Your task to perform on an android device: What time is it in Los Angeles? Image 0: 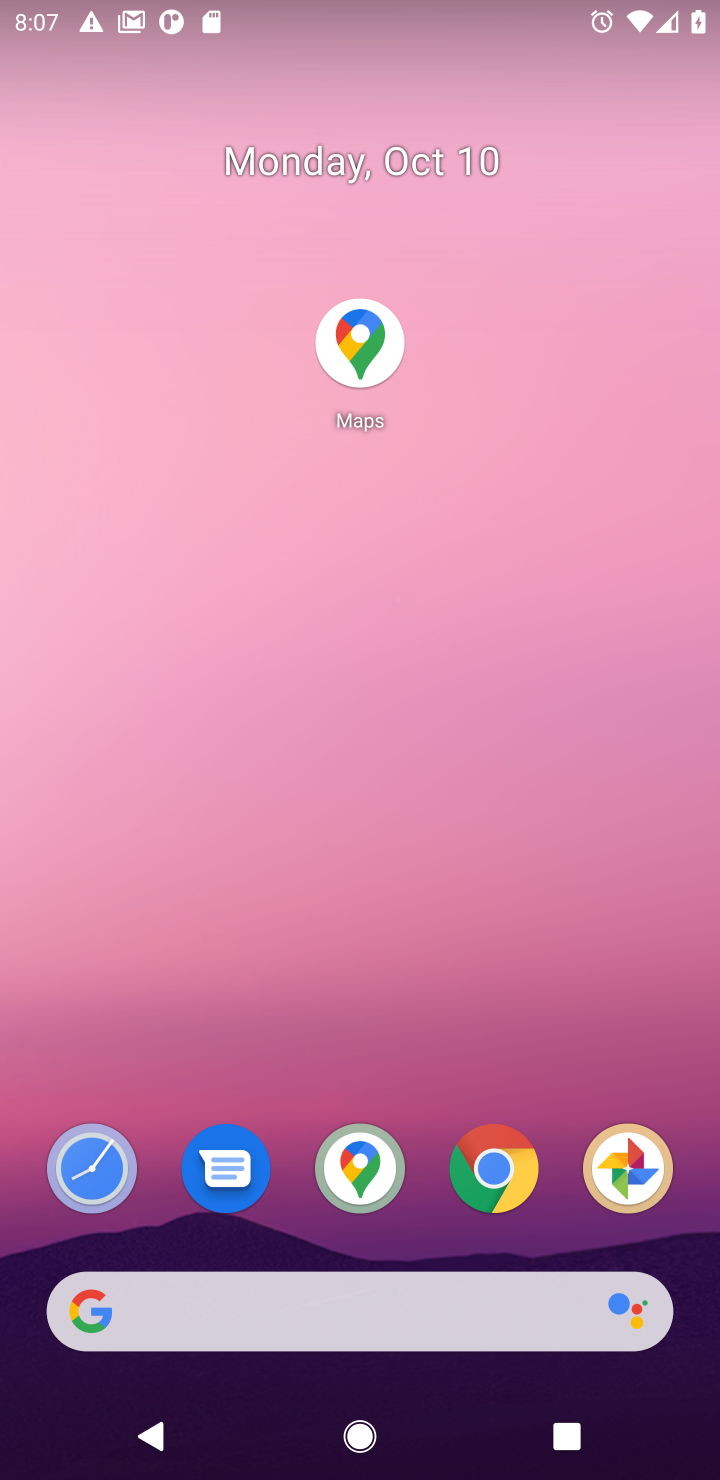
Step 0: click (277, 1302)
Your task to perform on an android device: What time is it in Los Angeles? Image 1: 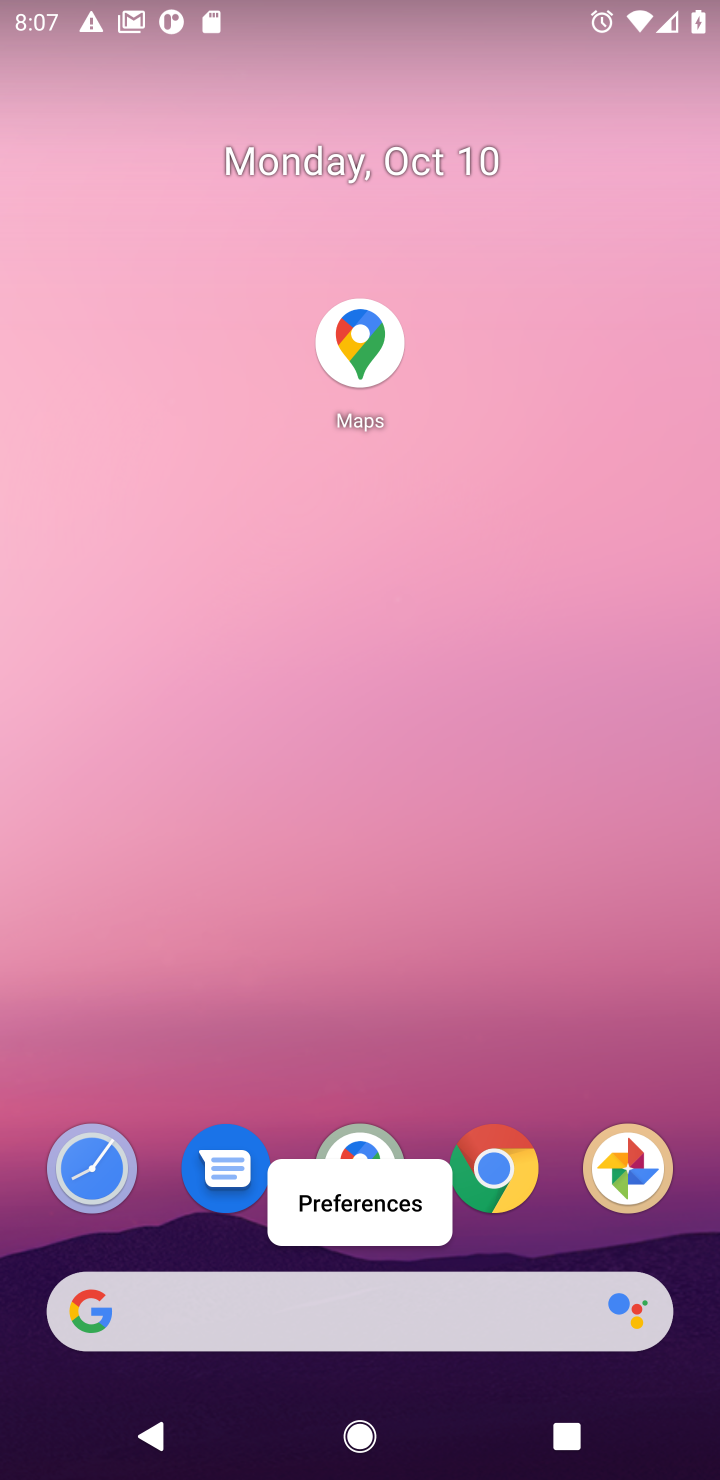
Step 1: click (170, 1305)
Your task to perform on an android device: What time is it in Los Angeles? Image 2: 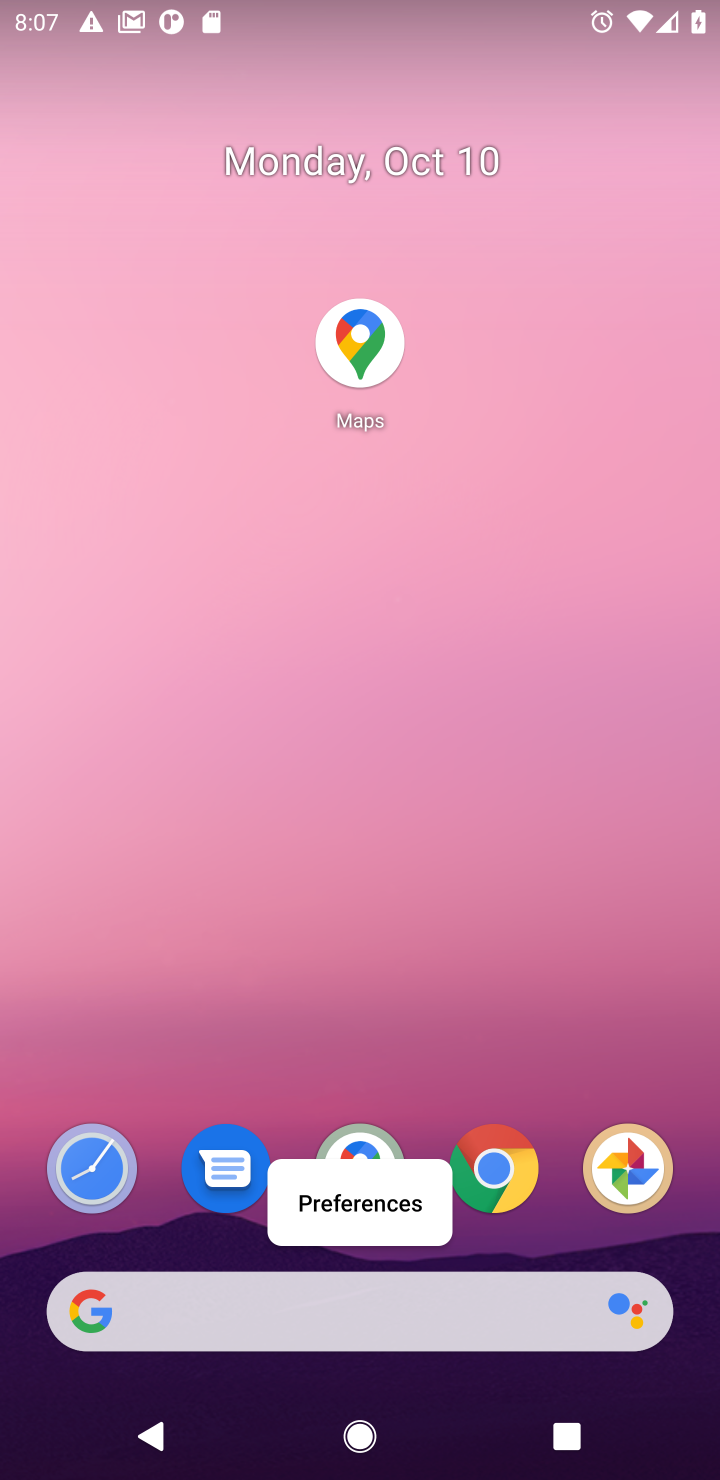
Step 2: click (170, 1305)
Your task to perform on an android device: What time is it in Los Angeles? Image 3: 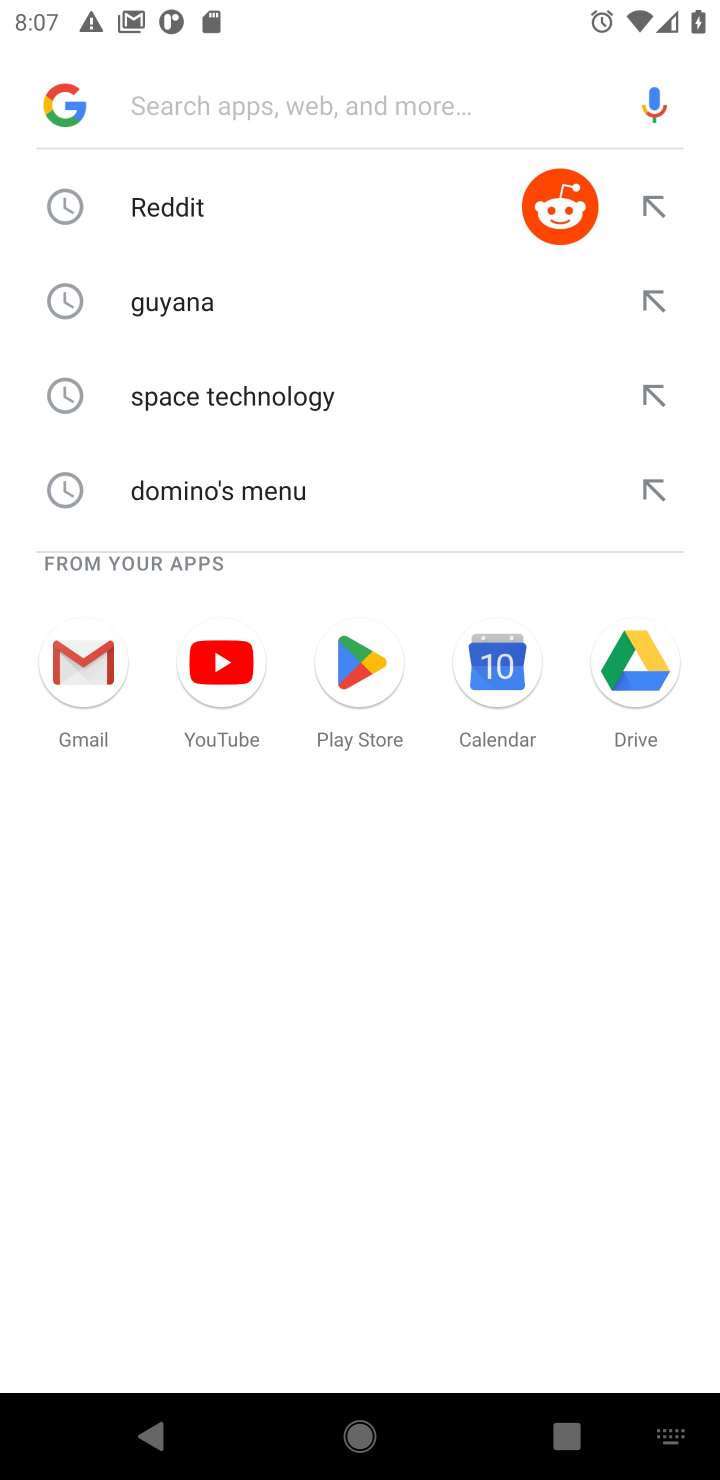
Step 3: click (155, 118)
Your task to perform on an android device: What time is it in Los Angeles? Image 4: 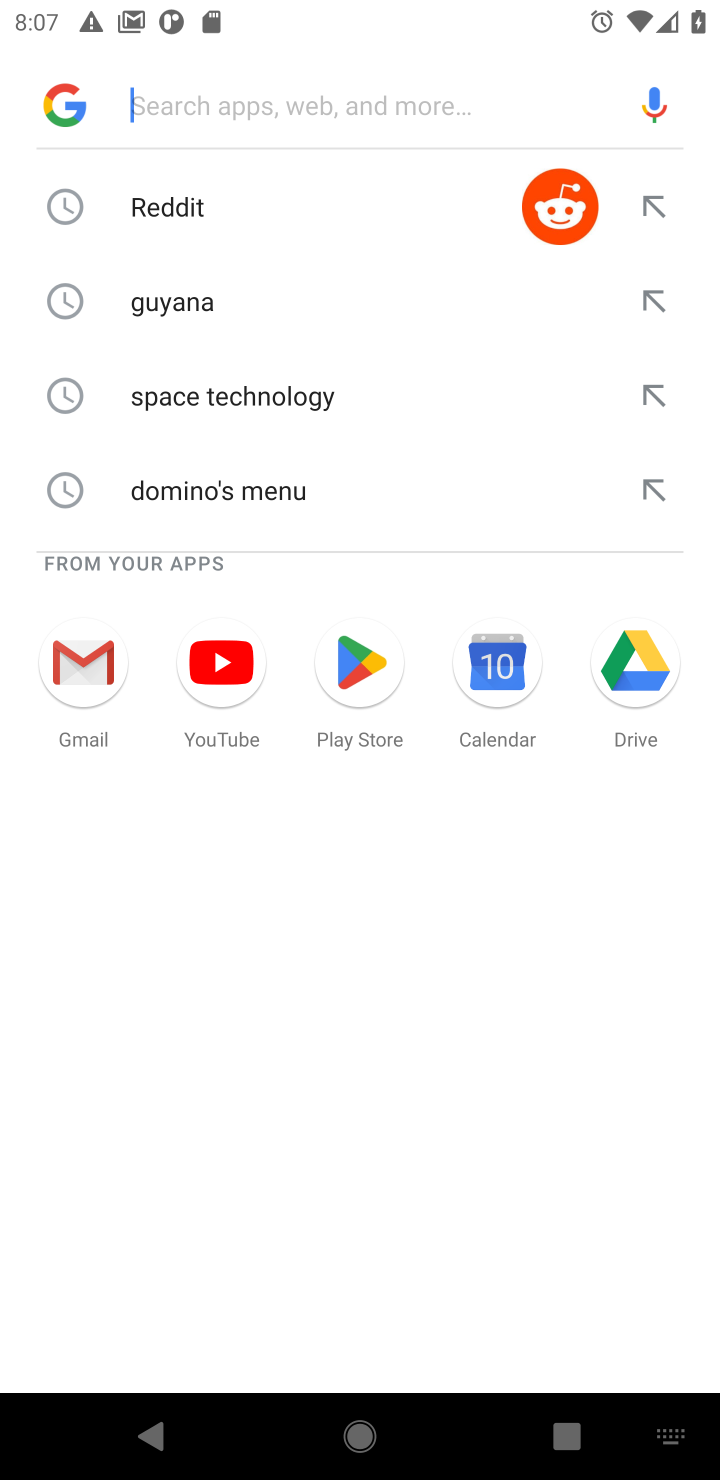
Step 4: type "time in los angeles"
Your task to perform on an android device: What time is it in Los Angeles? Image 5: 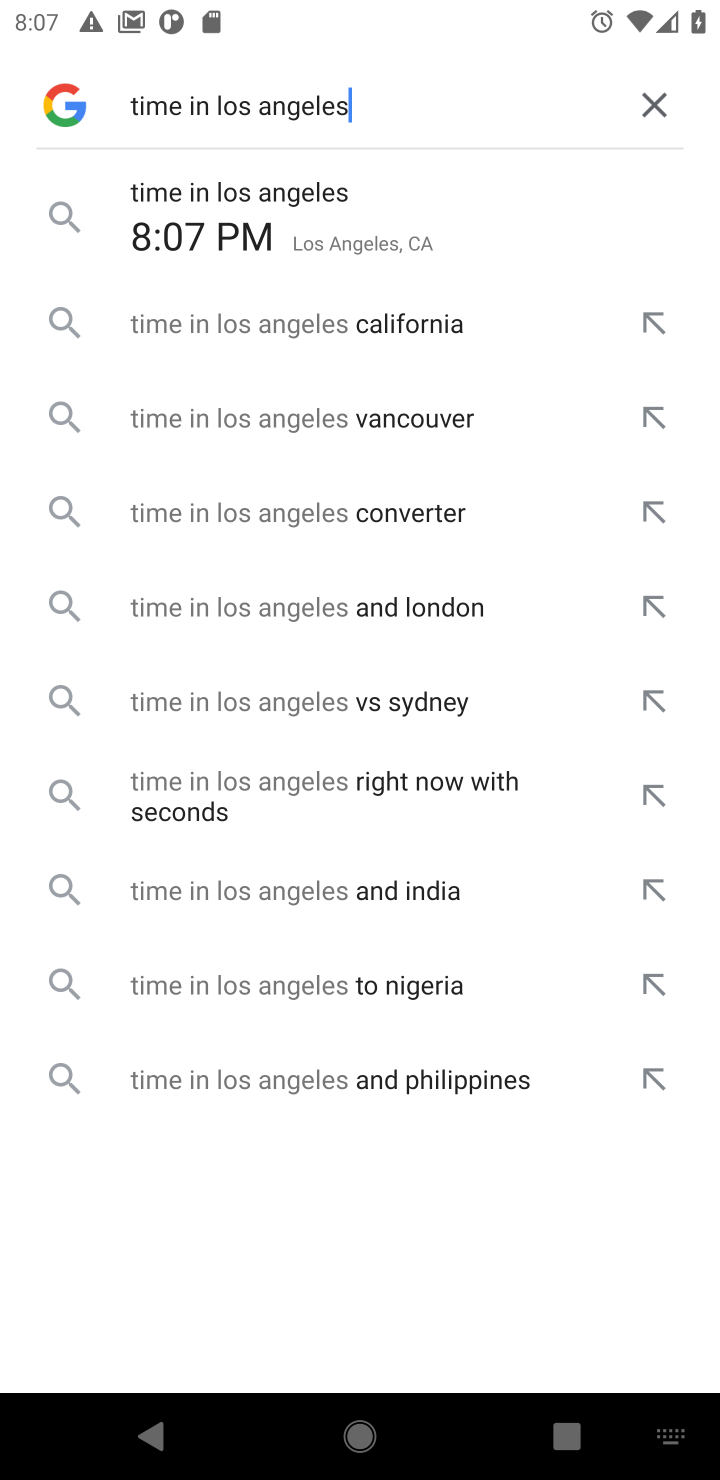
Step 5: click (232, 240)
Your task to perform on an android device: What time is it in Los Angeles? Image 6: 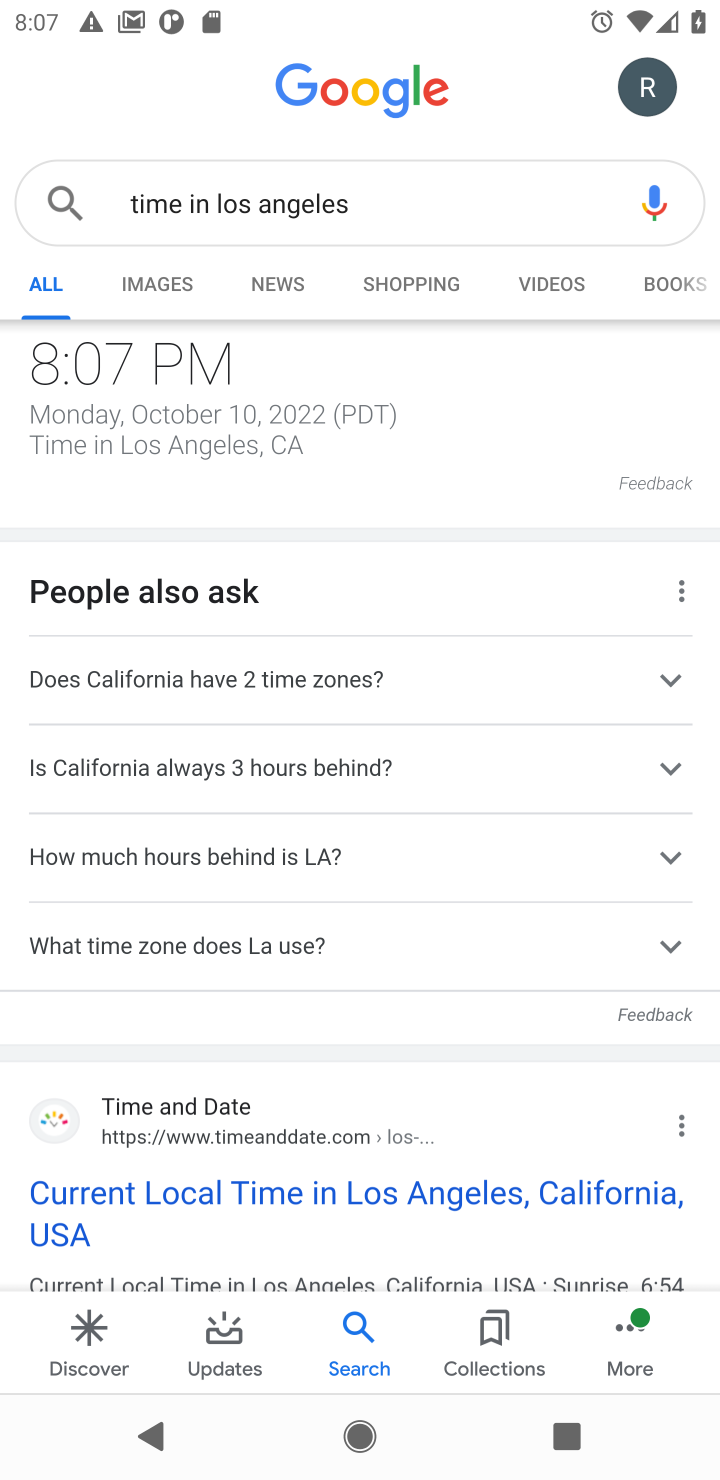
Step 6: task complete